Your task to perform on an android device: empty trash in google photos Image 0: 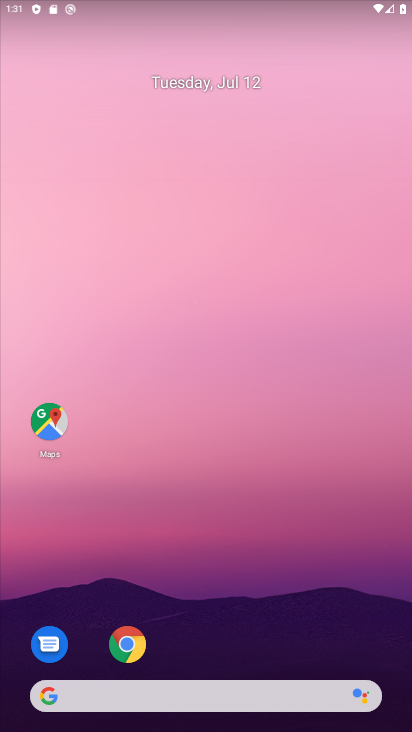
Step 0: drag from (203, 672) to (150, 71)
Your task to perform on an android device: empty trash in google photos Image 1: 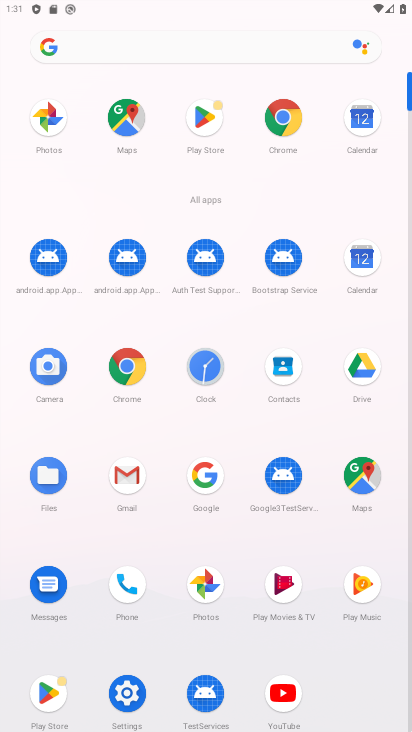
Step 1: click (200, 592)
Your task to perform on an android device: empty trash in google photos Image 2: 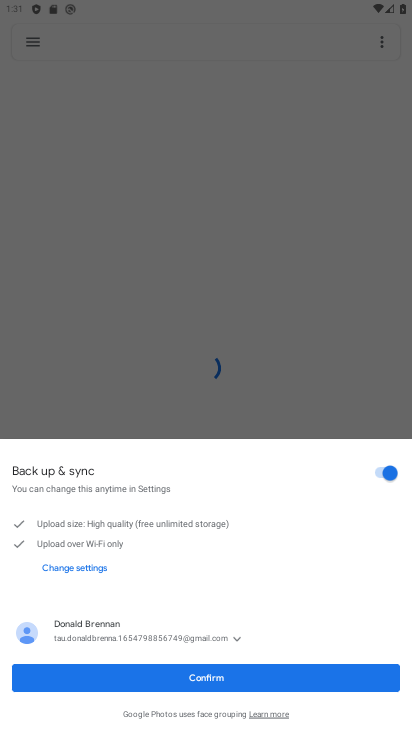
Step 2: click (165, 685)
Your task to perform on an android device: empty trash in google photos Image 3: 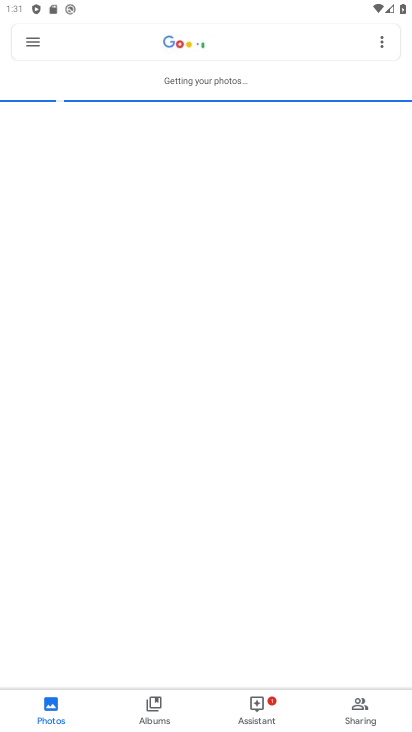
Step 3: click (23, 42)
Your task to perform on an android device: empty trash in google photos Image 4: 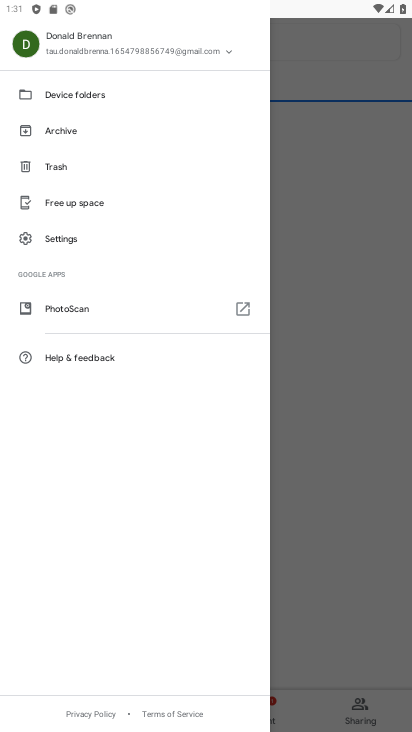
Step 4: click (58, 163)
Your task to perform on an android device: empty trash in google photos Image 5: 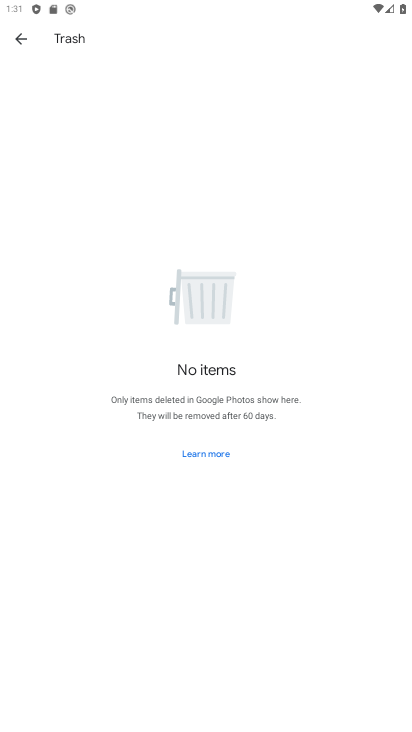
Step 5: task complete